Your task to perform on an android device: Go to accessibility settings Image 0: 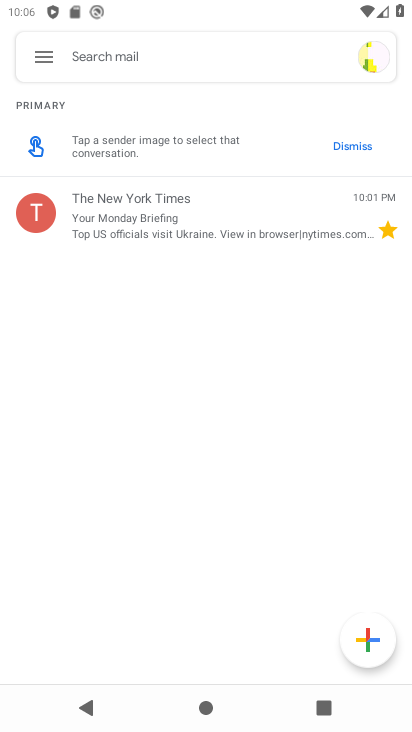
Step 0: press back button
Your task to perform on an android device: Go to accessibility settings Image 1: 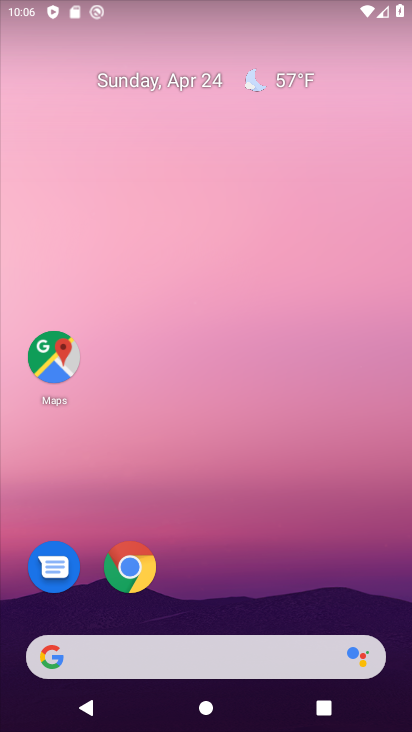
Step 1: click (349, 232)
Your task to perform on an android device: Go to accessibility settings Image 2: 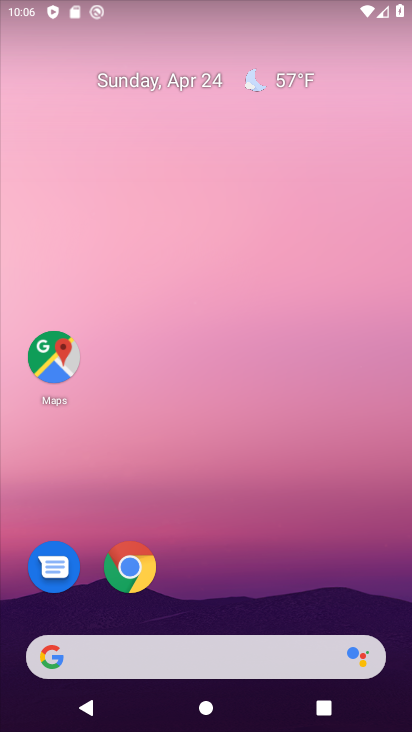
Step 2: drag from (392, 596) to (354, 107)
Your task to perform on an android device: Go to accessibility settings Image 3: 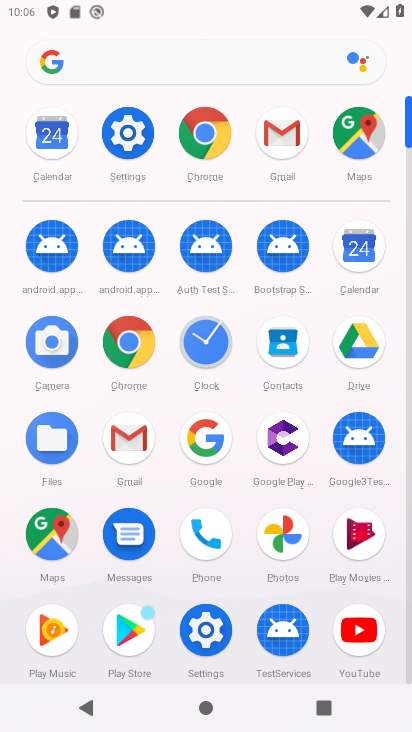
Step 3: click (127, 129)
Your task to perform on an android device: Go to accessibility settings Image 4: 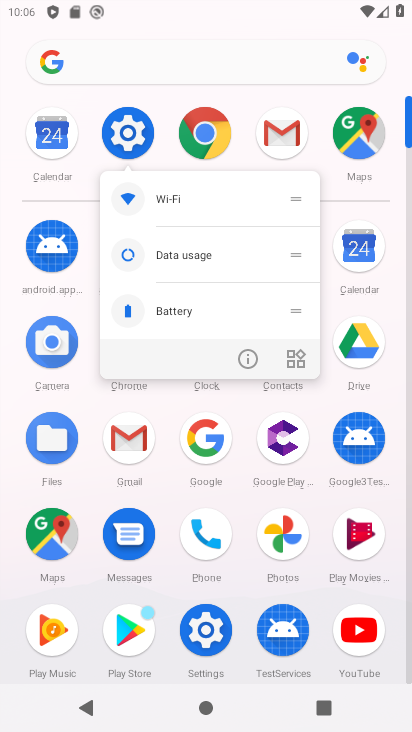
Step 4: click (126, 116)
Your task to perform on an android device: Go to accessibility settings Image 5: 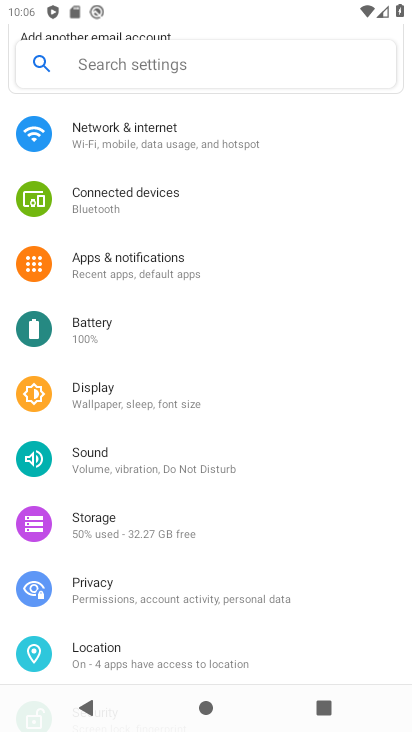
Step 5: drag from (354, 650) to (326, 248)
Your task to perform on an android device: Go to accessibility settings Image 6: 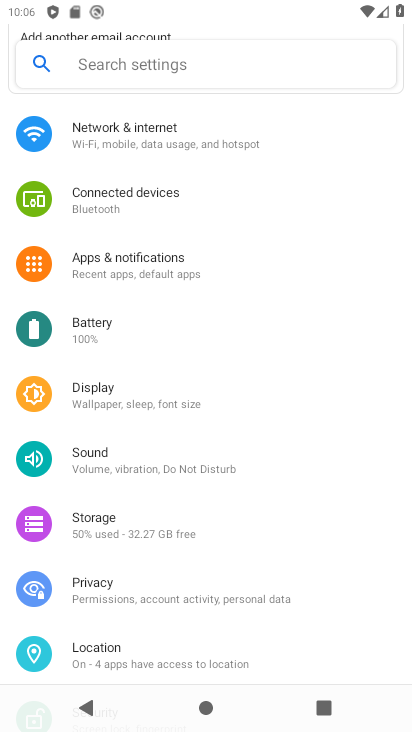
Step 6: drag from (346, 539) to (340, 324)
Your task to perform on an android device: Go to accessibility settings Image 7: 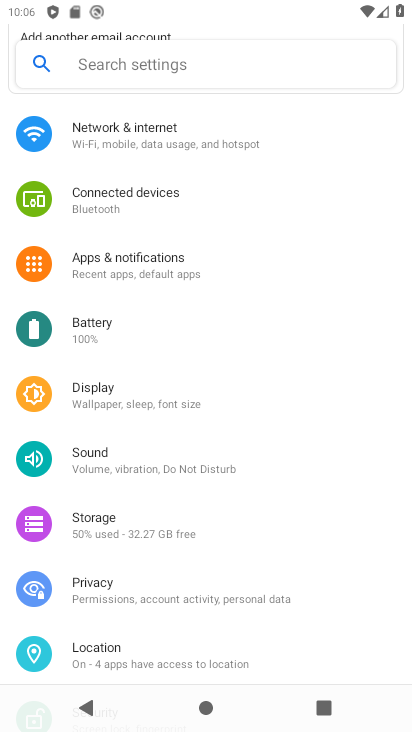
Step 7: drag from (348, 641) to (325, 422)
Your task to perform on an android device: Go to accessibility settings Image 8: 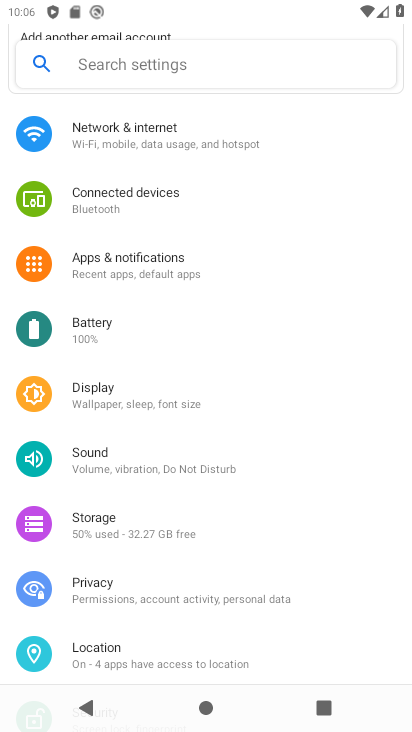
Step 8: drag from (365, 641) to (343, 352)
Your task to perform on an android device: Go to accessibility settings Image 9: 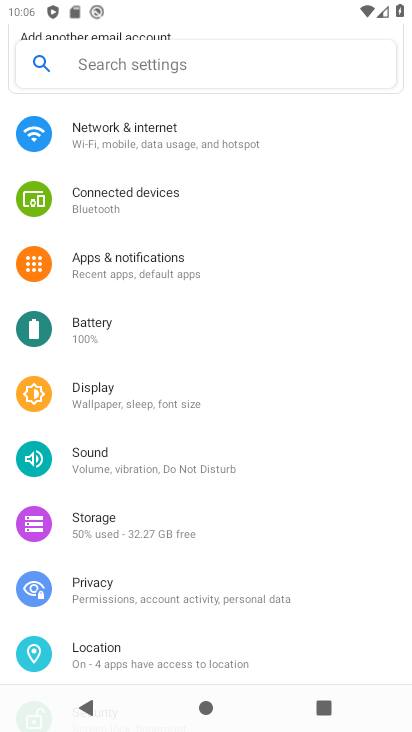
Step 9: drag from (357, 661) to (335, 378)
Your task to perform on an android device: Go to accessibility settings Image 10: 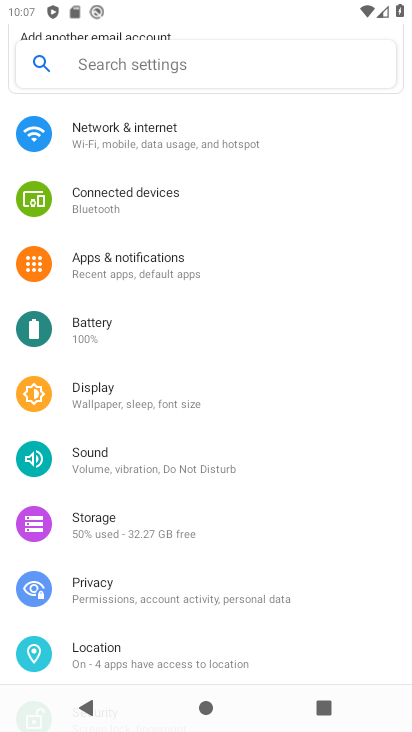
Step 10: drag from (371, 651) to (358, 420)
Your task to perform on an android device: Go to accessibility settings Image 11: 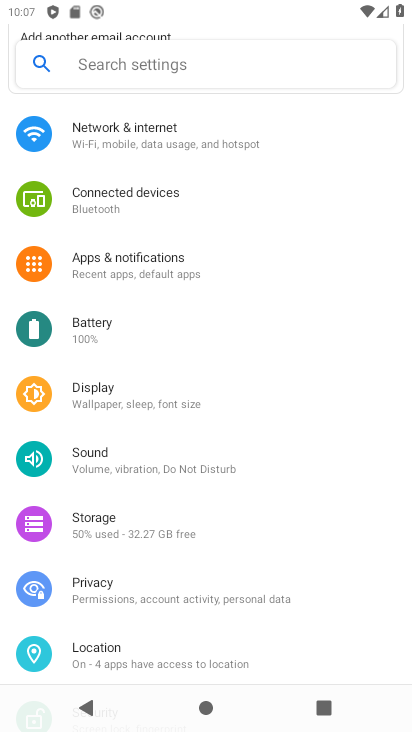
Step 11: click (339, 308)
Your task to perform on an android device: Go to accessibility settings Image 12: 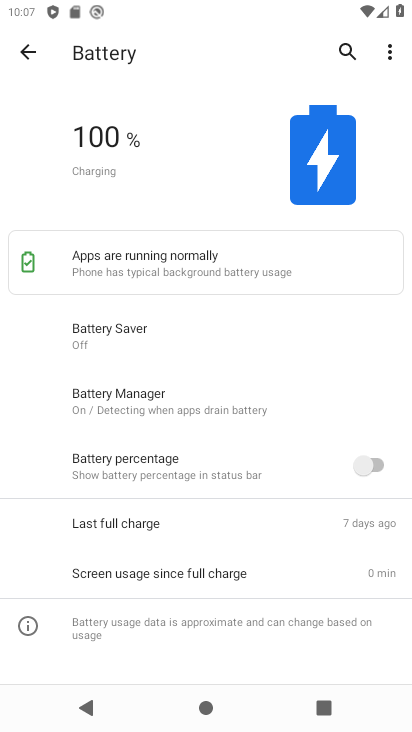
Step 12: click (20, 46)
Your task to perform on an android device: Go to accessibility settings Image 13: 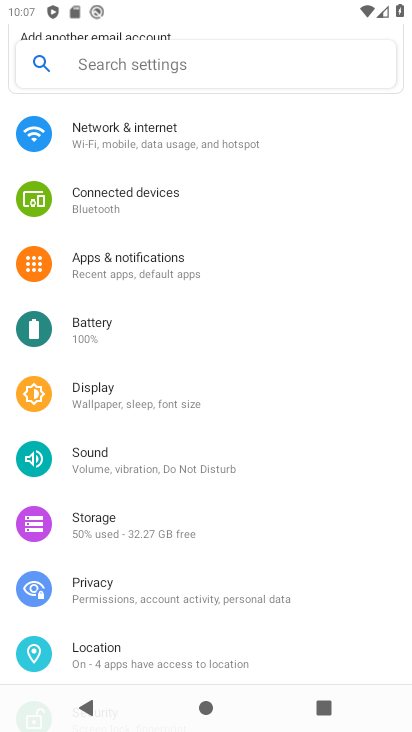
Step 13: drag from (359, 487) to (352, 191)
Your task to perform on an android device: Go to accessibility settings Image 14: 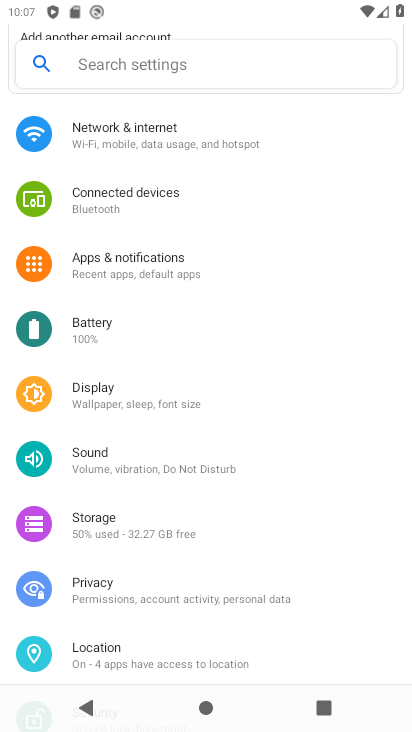
Step 14: drag from (369, 615) to (342, 257)
Your task to perform on an android device: Go to accessibility settings Image 15: 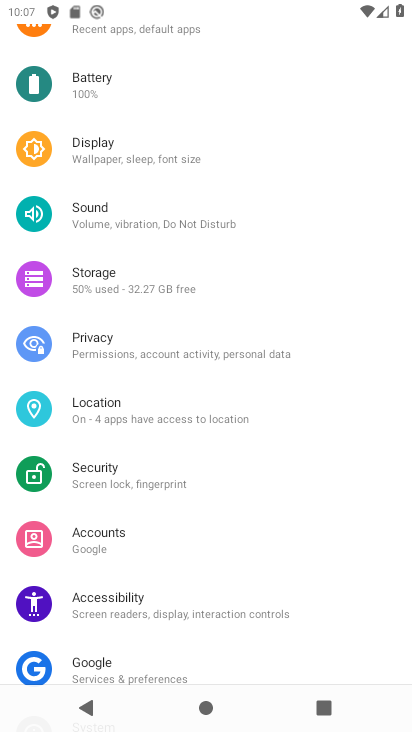
Step 15: click (136, 602)
Your task to perform on an android device: Go to accessibility settings Image 16: 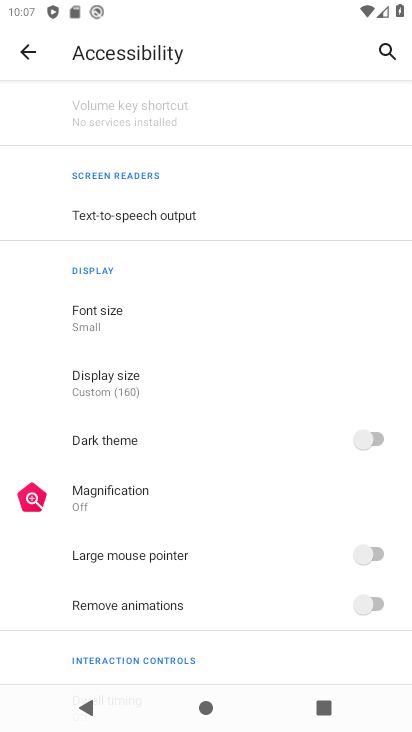
Step 16: task complete